Your task to perform on an android device: read, delete, or share a saved page in the chrome app Image 0: 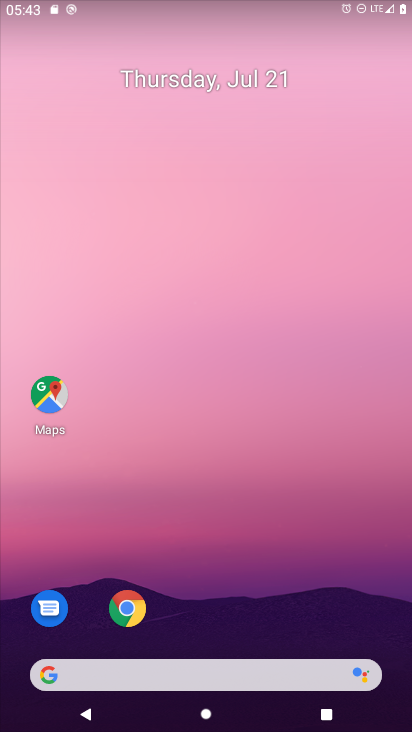
Step 0: drag from (221, 681) to (340, 40)
Your task to perform on an android device: read, delete, or share a saved page in the chrome app Image 1: 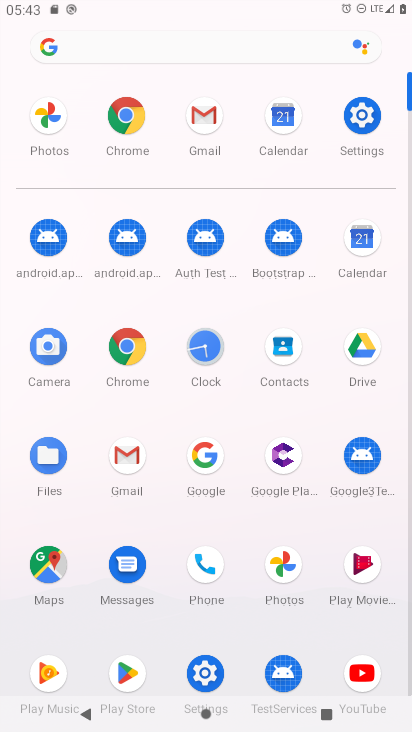
Step 1: click (132, 348)
Your task to perform on an android device: read, delete, or share a saved page in the chrome app Image 2: 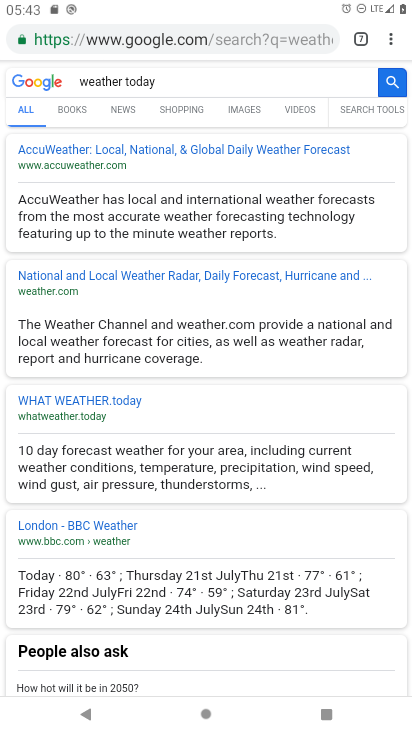
Step 2: task complete